Your task to perform on an android device: Open the Play Movies app and select the watchlist tab. Image 0: 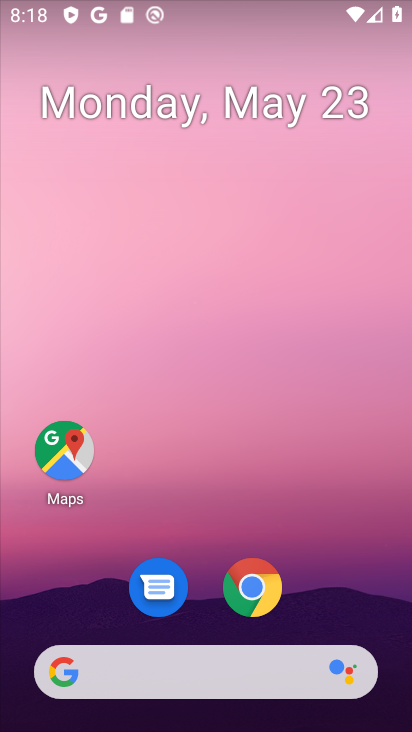
Step 0: drag from (220, 622) to (237, 47)
Your task to perform on an android device: Open the Play Movies app and select the watchlist tab. Image 1: 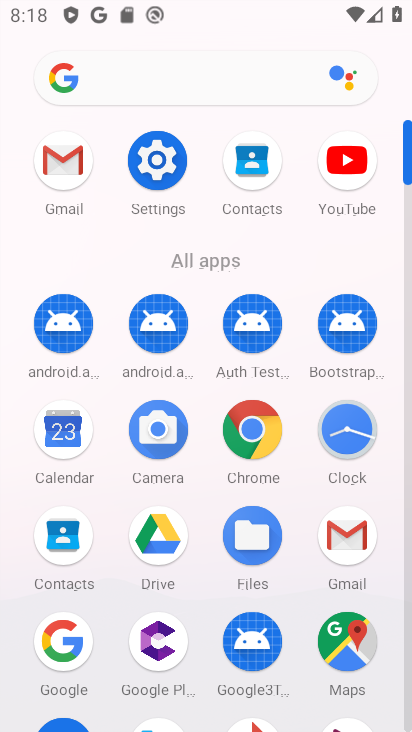
Step 1: drag from (267, 633) to (291, 189)
Your task to perform on an android device: Open the Play Movies app and select the watchlist tab. Image 2: 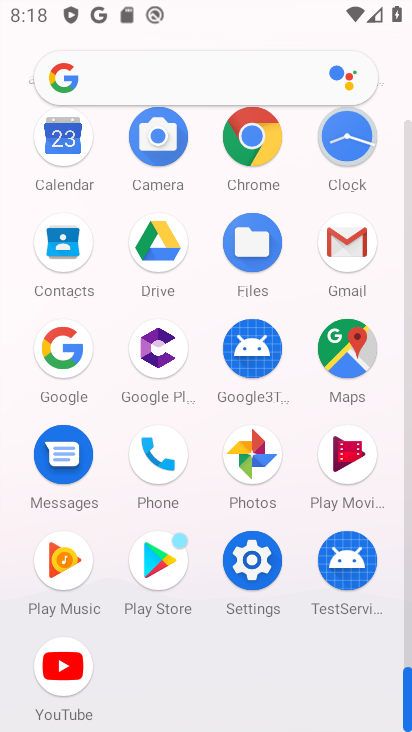
Step 2: click (354, 463)
Your task to perform on an android device: Open the Play Movies app and select the watchlist tab. Image 3: 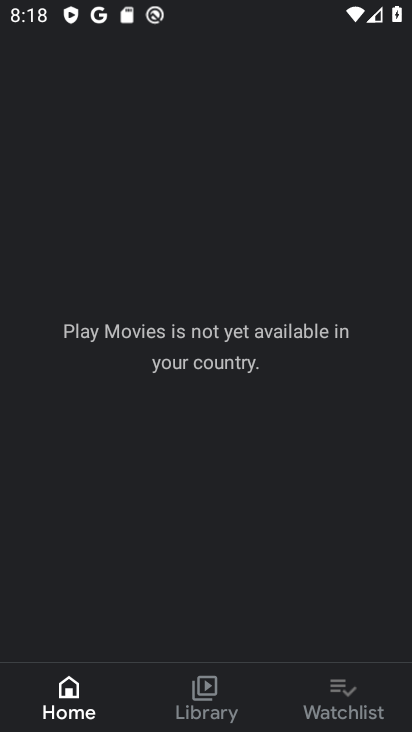
Step 3: click (358, 696)
Your task to perform on an android device: Open the Play Movies app and select the watchlist tab. Image 4: 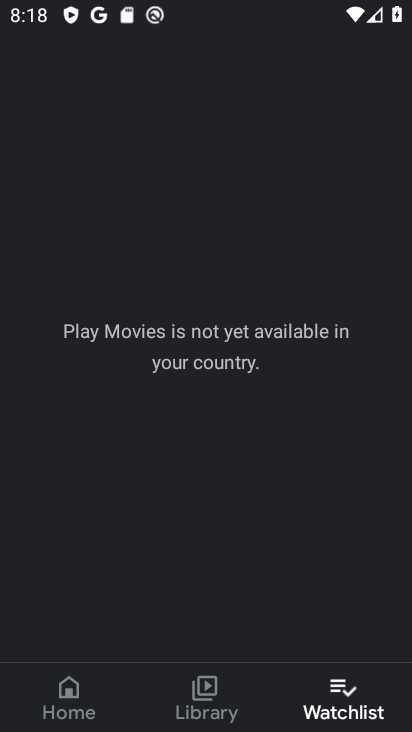
Step 4: task complete